Your task to perform on an android device: Go to sound settings Image 0: 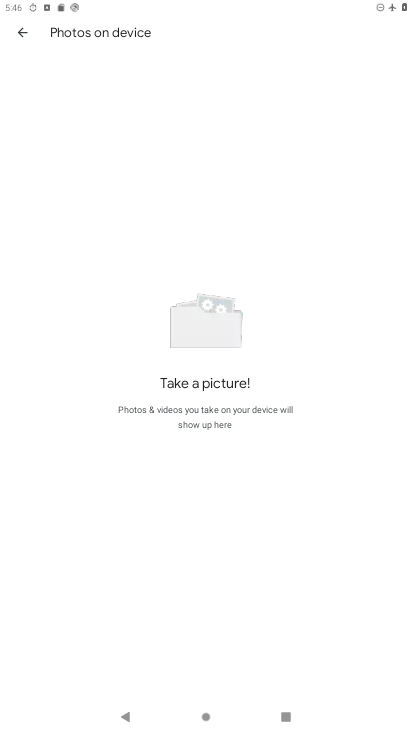
Step 0: press home button
Your task to perform on an android device: Go to sound settings Image 1: 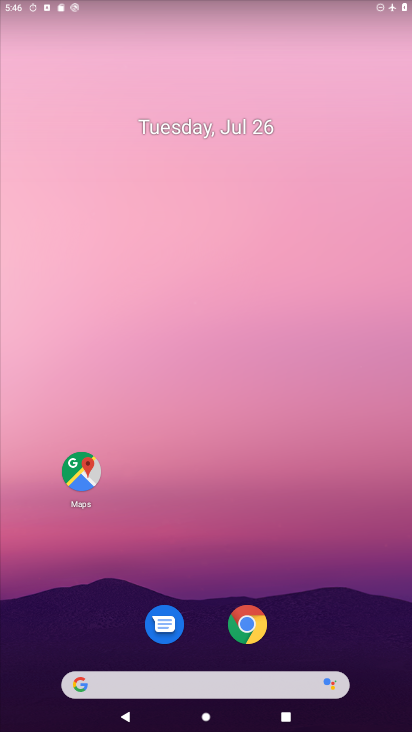
Step 1: drag from (273, 645) to (311, 34)
Your task to perform on an android device: Go to sound settings Image 2: 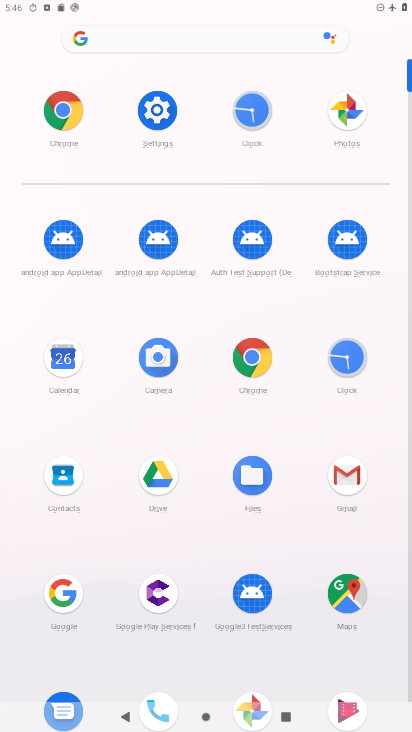
Step 2: click (173, 118)
Your task to perform on an android device: Go to sound settings Image 3: 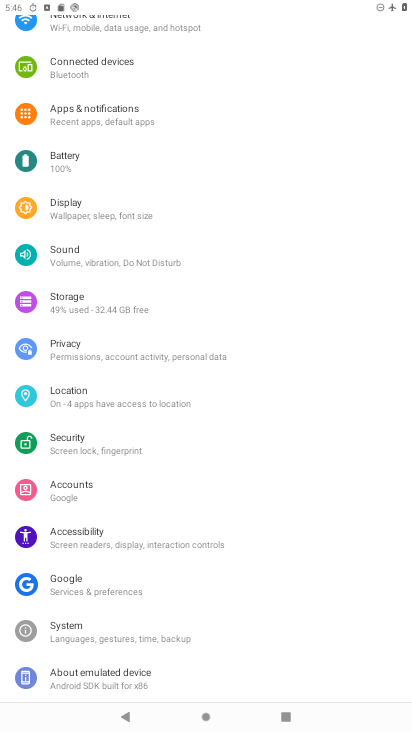
Step 3: click (100, 253)
Your task to perform on an android device: Go to sound settings Image 4: 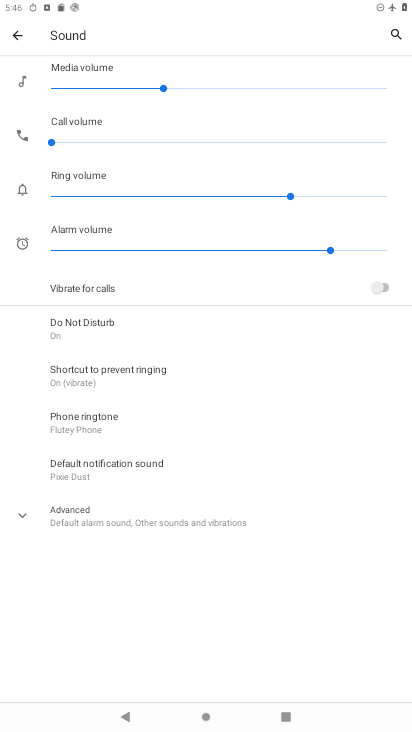
Step 4: task complete